Your task to perform on an android device: all mails in gmail Image 0: 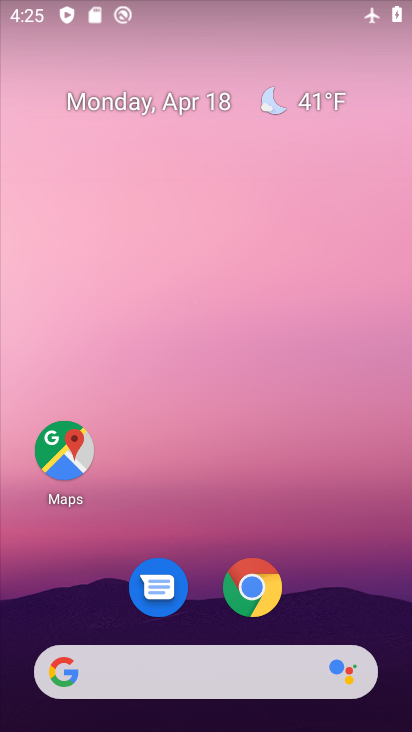
Step 0: drag from (331, 482) to (345, 343)
Your task to perform on an android device: all mails in gmail Image 1: 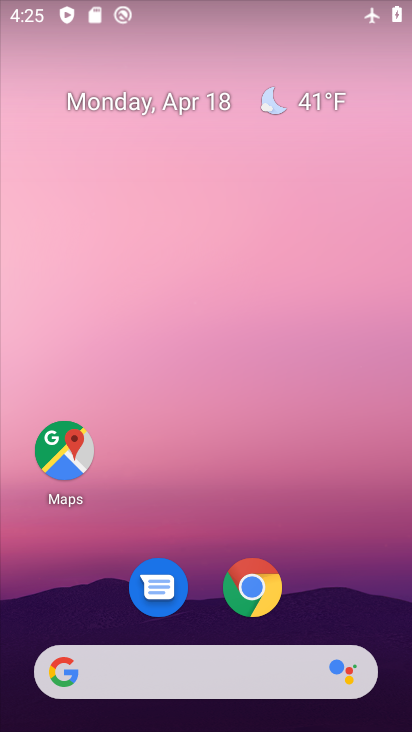
Step 1: drag from (233, 251) to (227, 189)
Your task to perform on an android device: all mails in gmail Image 2: 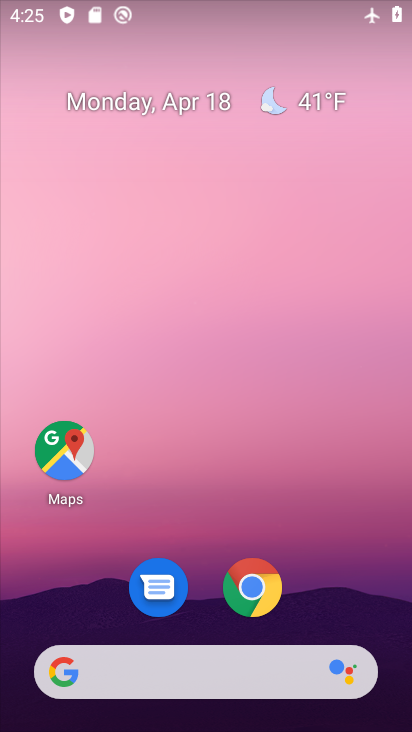
Step 2: drag from (198, 625) to (264, 232)
Your task to perform on an android device: all mails in gmail Image 3: 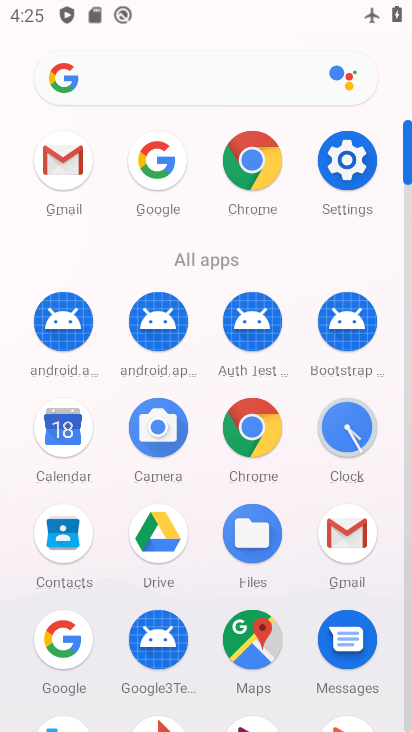
Step 3: click (53, 162)
Your task to perform on an android device: all mails in gmail Image 4: 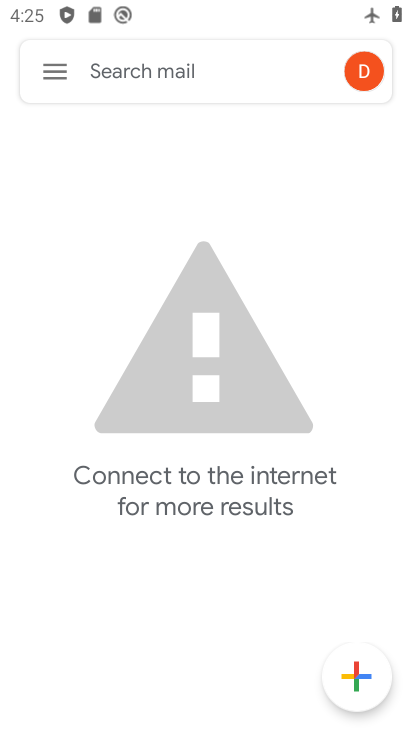
Step 4: click (48, 74)
Your task to perform on an android device: all mails in gmail Image 5: 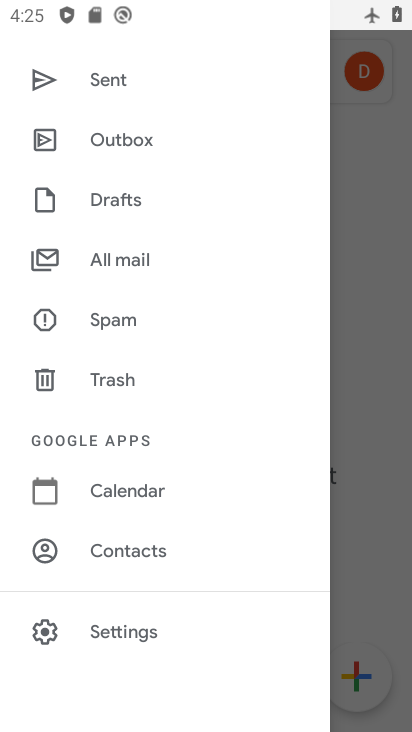
Step 5: click (104, 256)
Your task to perform on an android device: all mails in gmail Image 6: 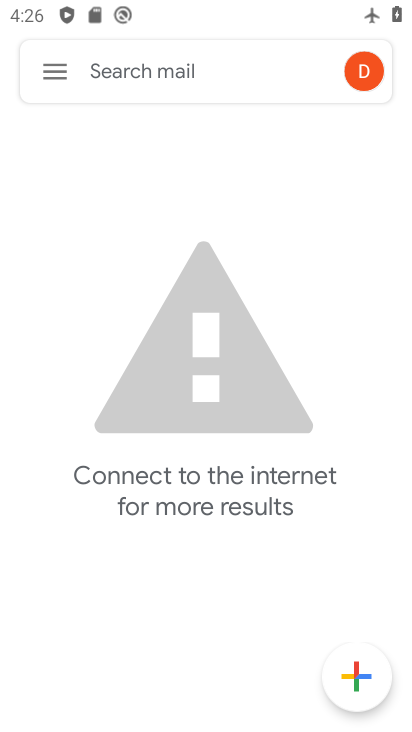
Step 6: task complete